Your task to perform on an android device: Open the stopwatch Image 0: 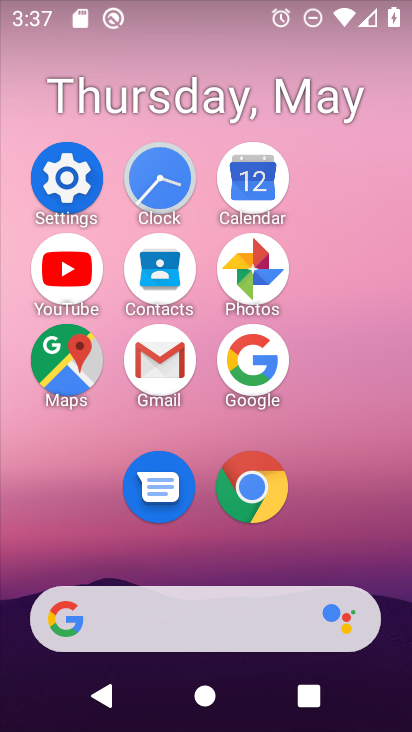
Step 0: click (185, 186)
Your task to perform on an android device: Open the stopwatch Image 1: 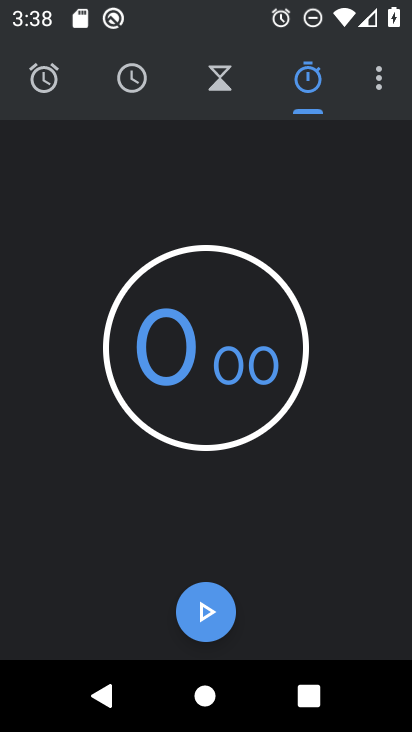
Step 1: task complete